Your task to perform on an android device: open app "Facebook Messenger" (install if not already installed) Image 0: 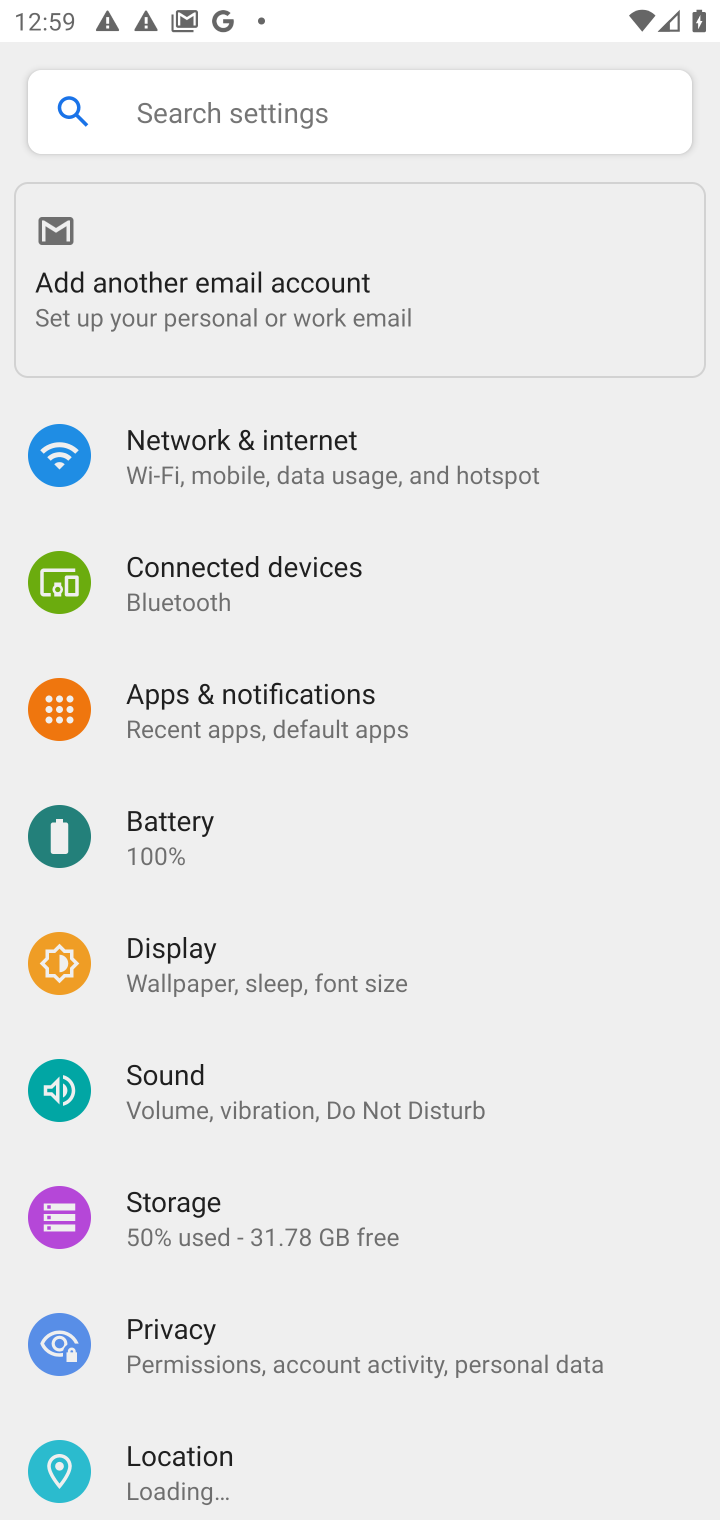
Step 0: press home button
Your task to perform on an android device: open app "Facebook Messenger" (install if not already installed) Image 1: 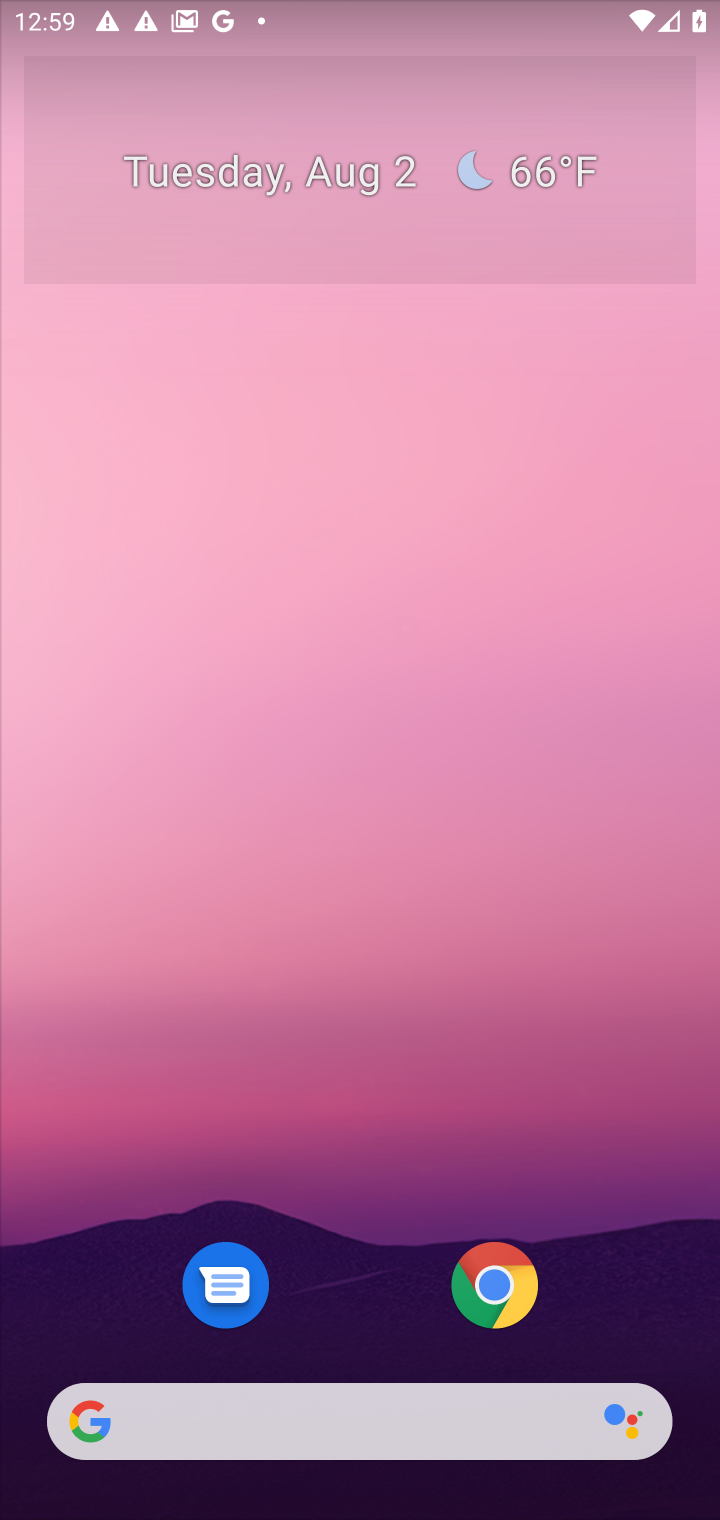
Step 1: drag from (376, 1371) to (468, 222)
Your task to perform on an android device: open app "Facebook Messenger" (install if not already installed) Image 2: 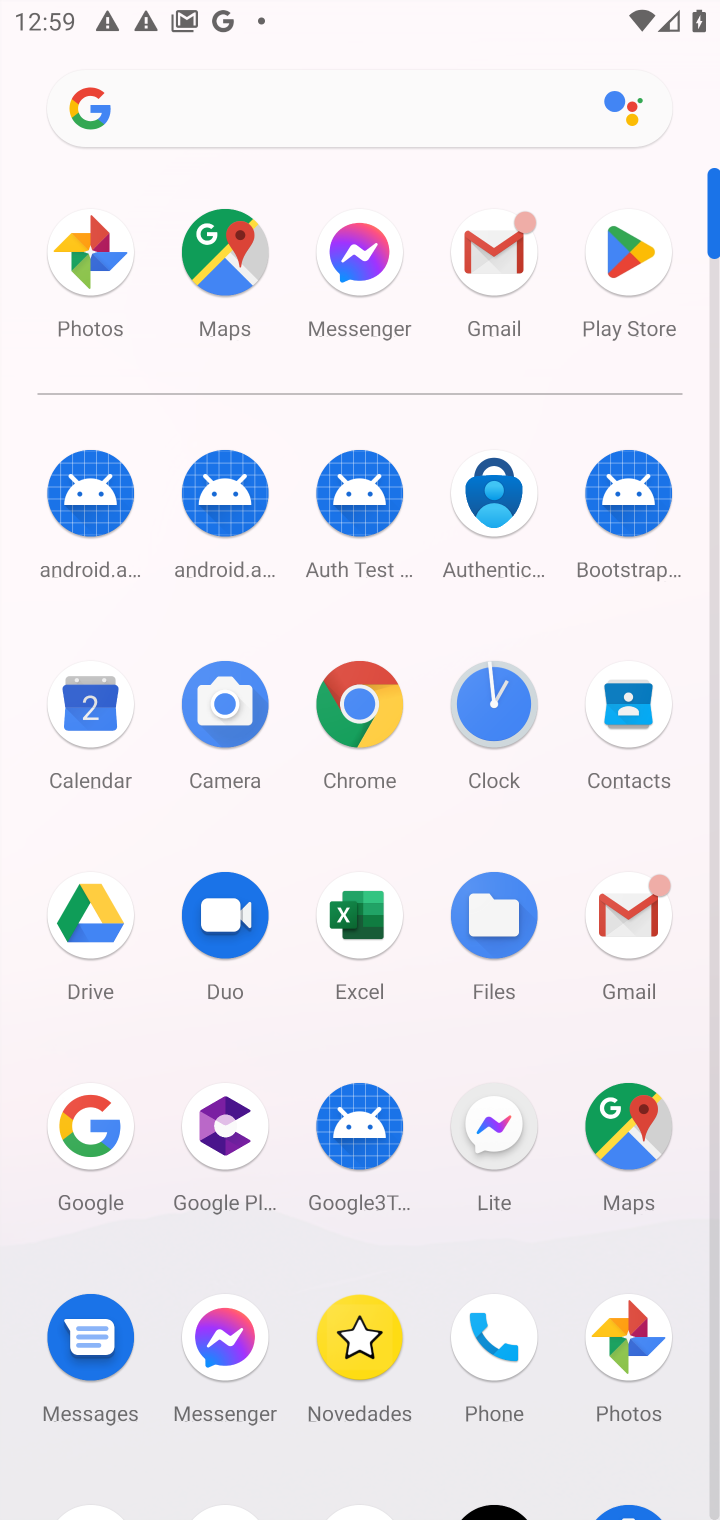
Step 2: drag from (448, 1246) to (526, 403)
Your task to perform on an android device: open app "Facebook Messenger" (install if not already installed) Image 3: 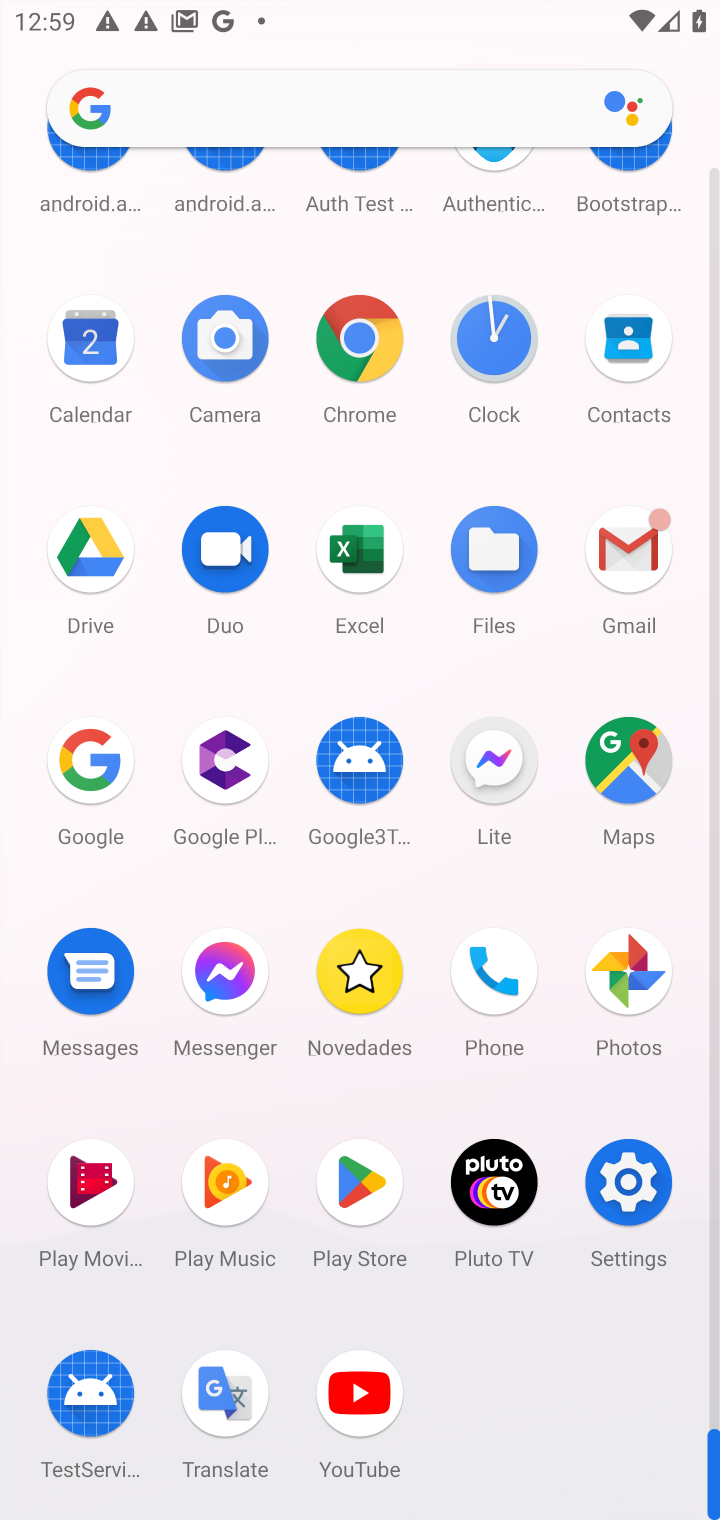
Step 3: click (362, 1194)
Your task to perform on an android device: open app "Facebook Messenger" (install if not already installed) Image 4: 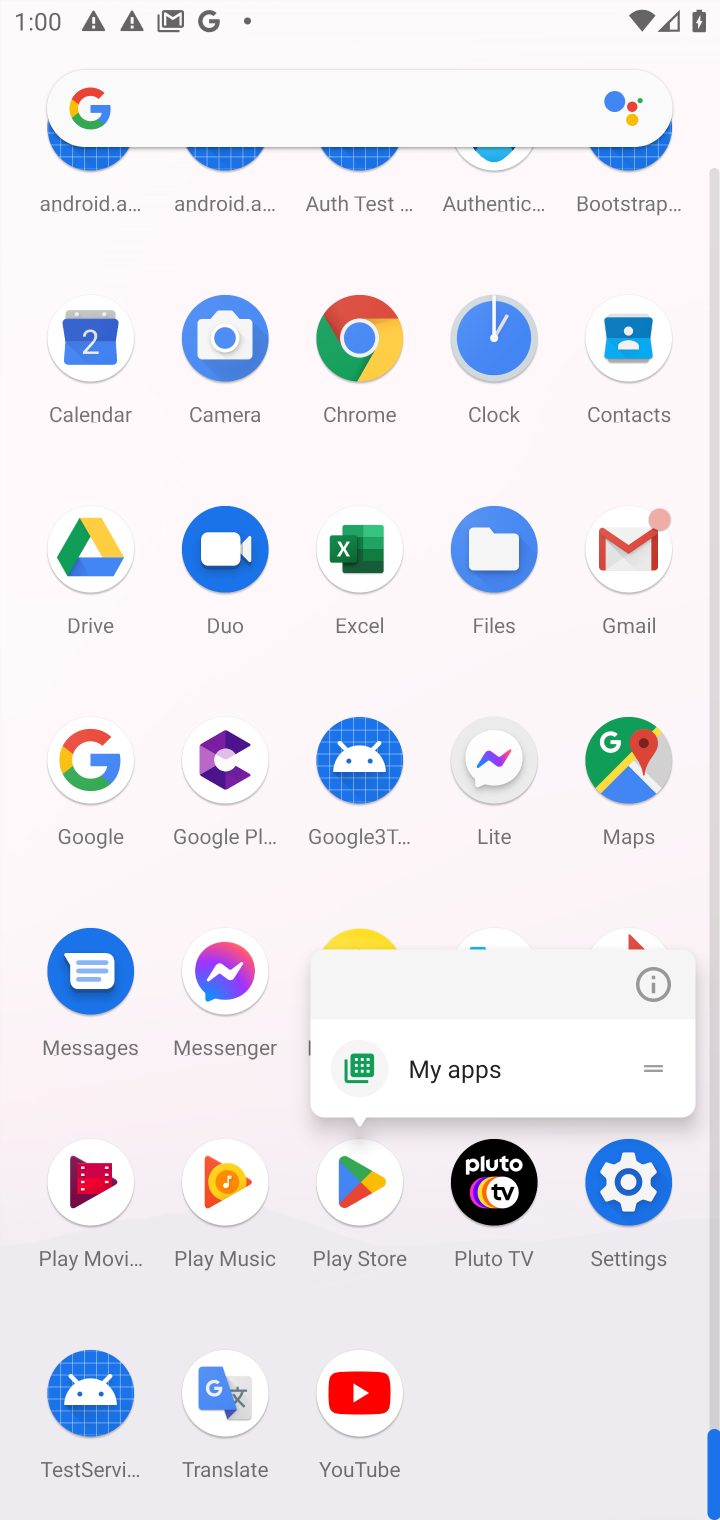
Step 4: click (341, 1170)
Your task to perform on an android device: open app "Facebook Messenger" (install if not already installed) Image 5: 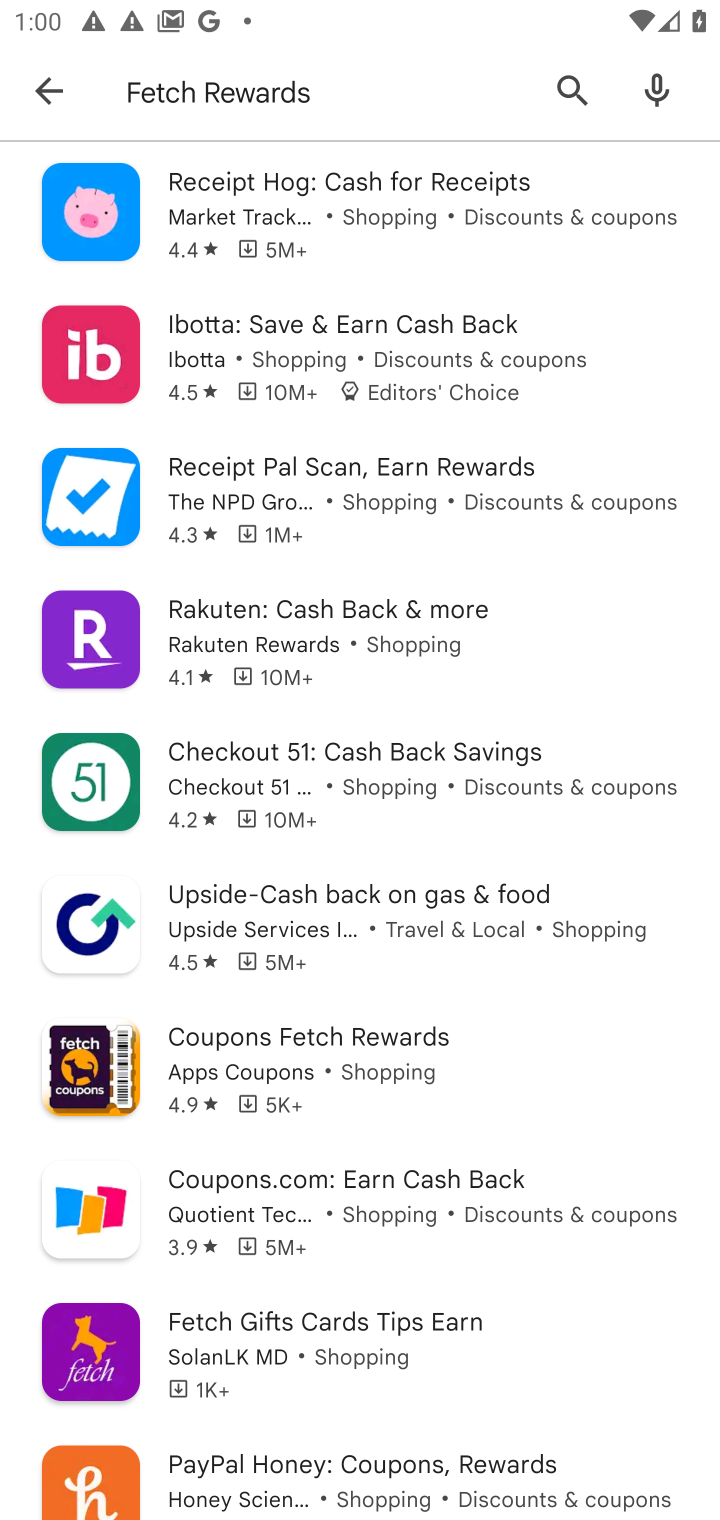
Step 5: click (349, 83)
Your task to perform on an android device: open app "Facebook Messenger" (install if not already installed) Image 6: 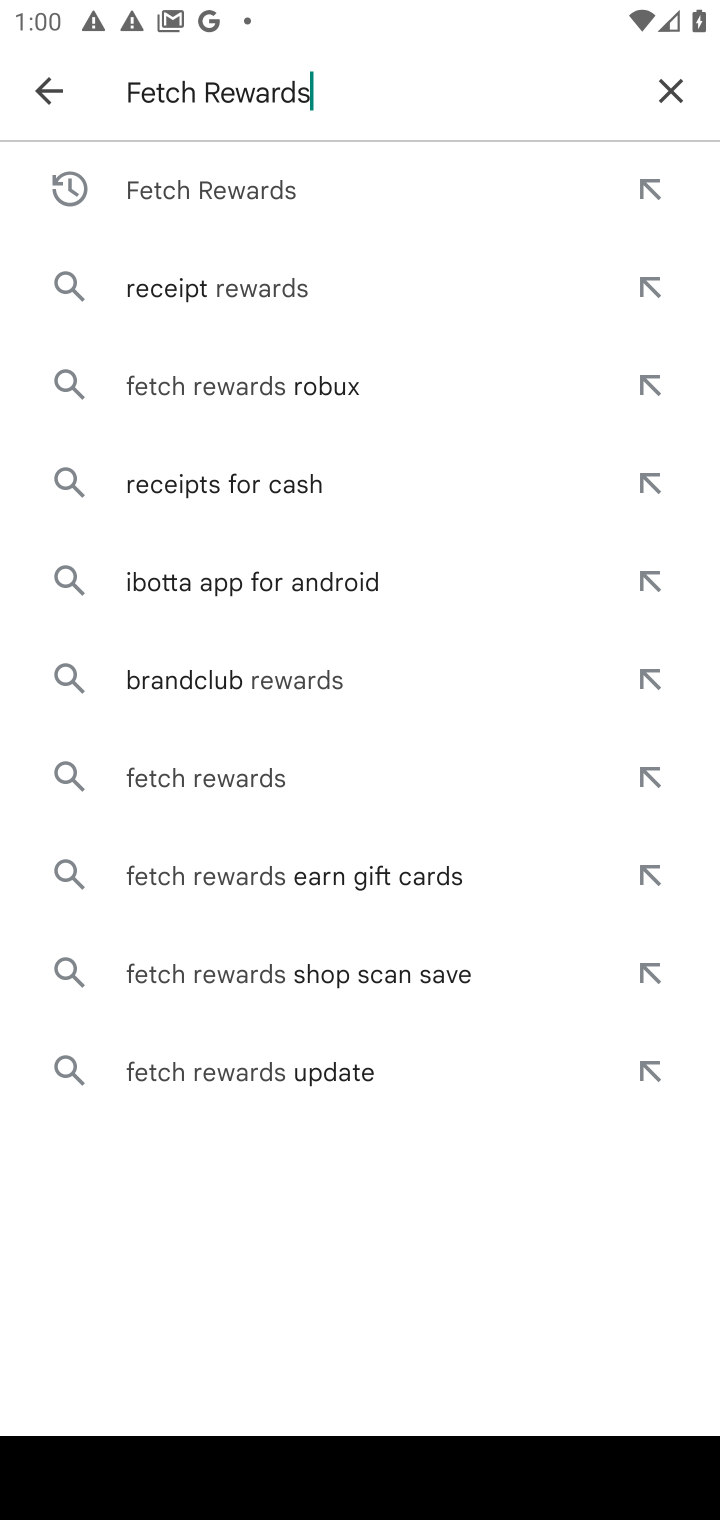
Step 6: click (669, 91)
Your task to perform on an android device: open app "Facebook Messenger" (install if not already installed) Image 7: 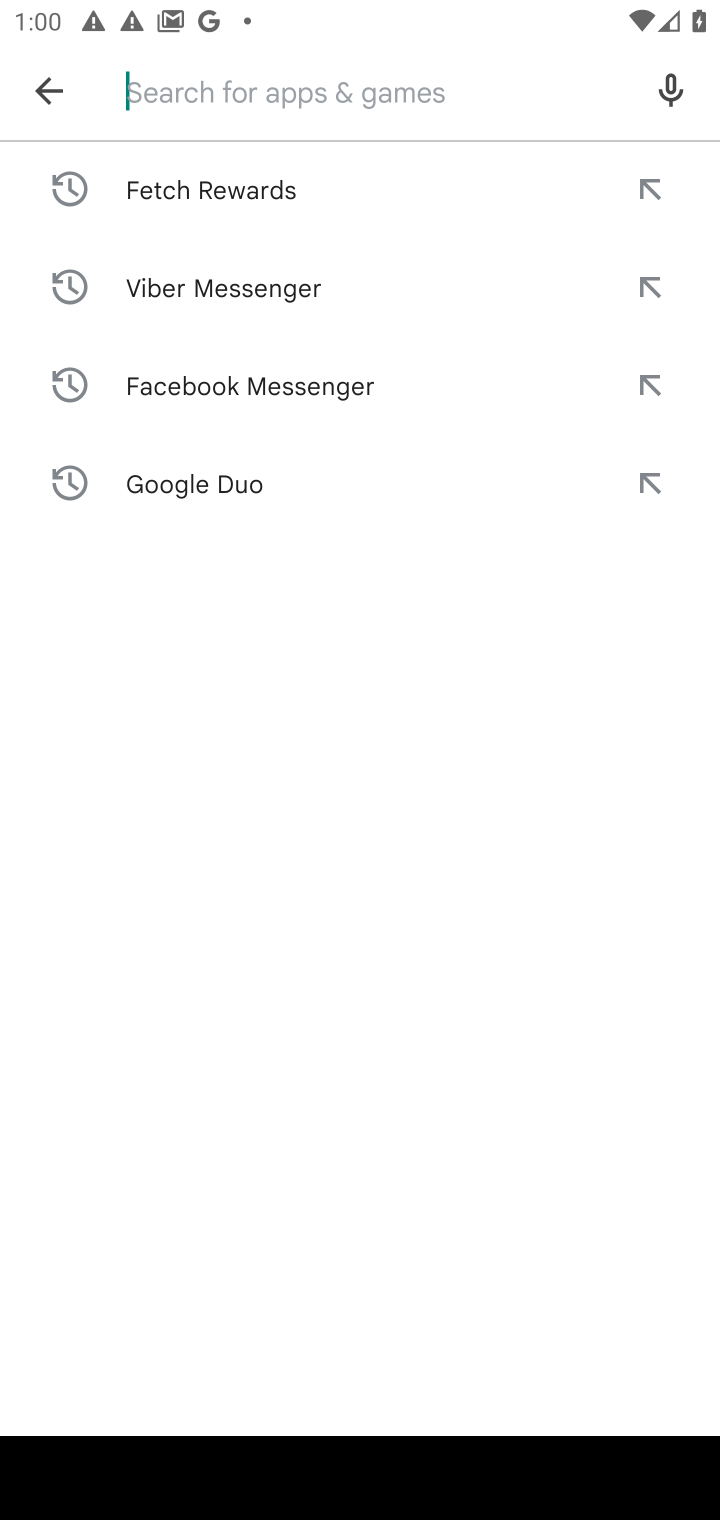
Step 7: type "Facebook Messenger"
Your task to perform on an android device: open app "Facebook Messenger" (install if not already installed) Image 8: 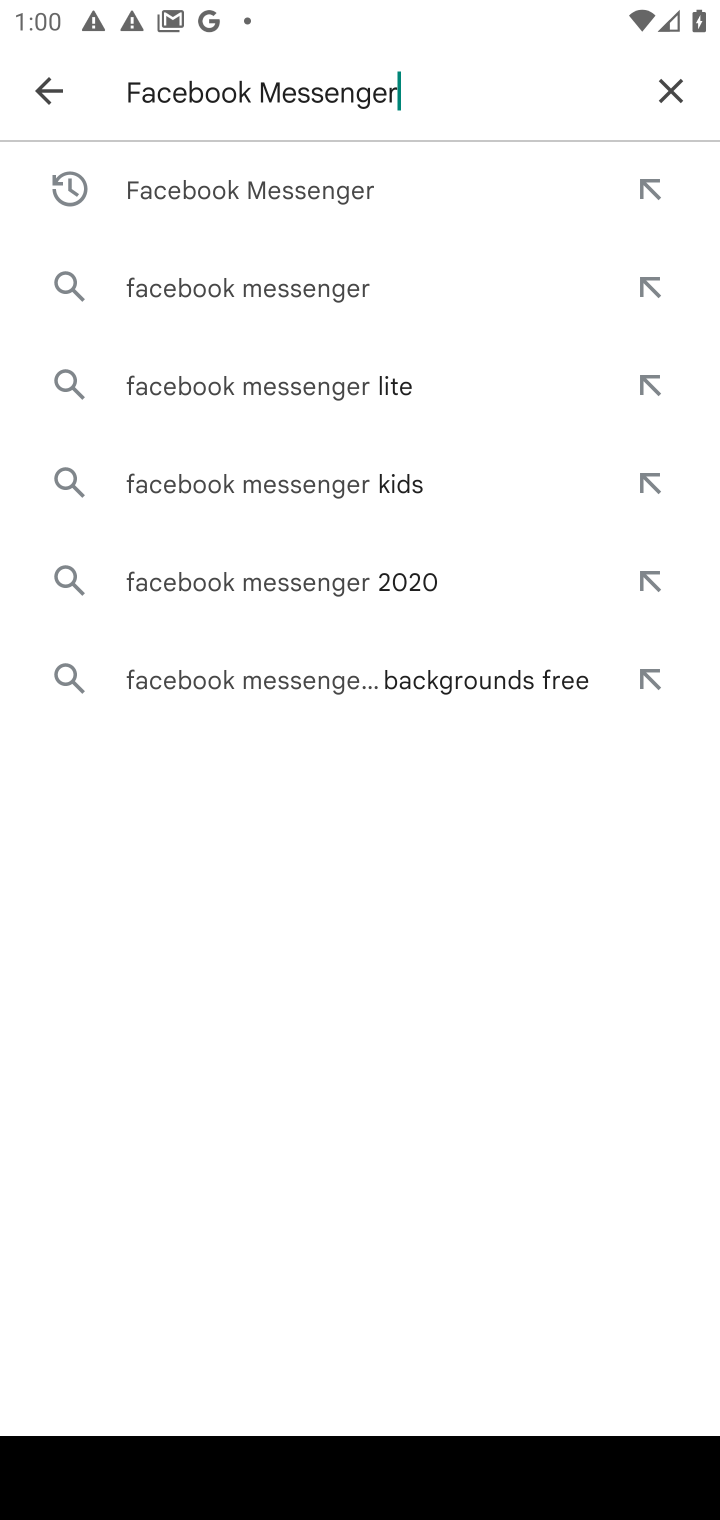
Step 8: press enter
Your task to perform on an android device: open app "Facebook Messenger" (install if not already installed) Image 9: 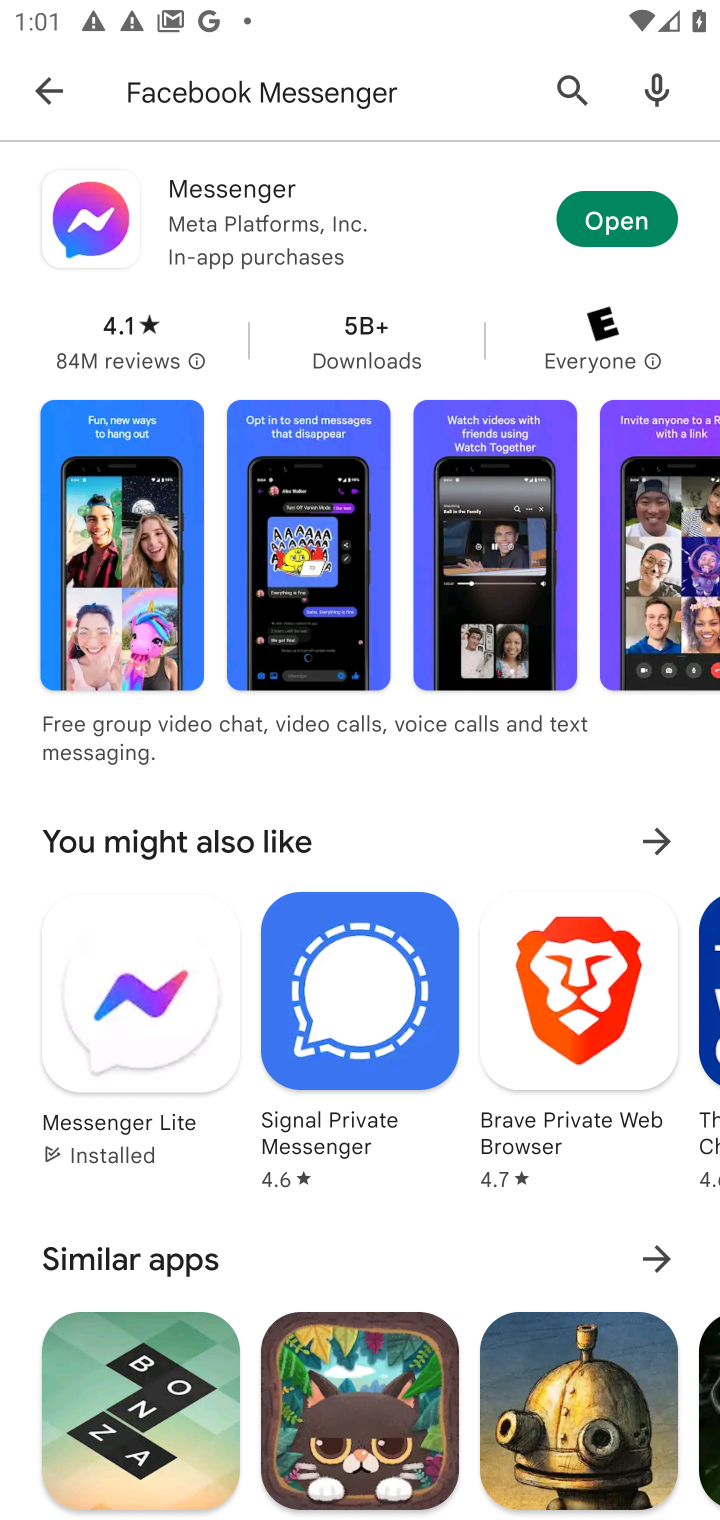
Step 9: click (620, 202)
Your task to perform on an android device: open app "Facebook Messenger" (install if not already installed) Image 10: 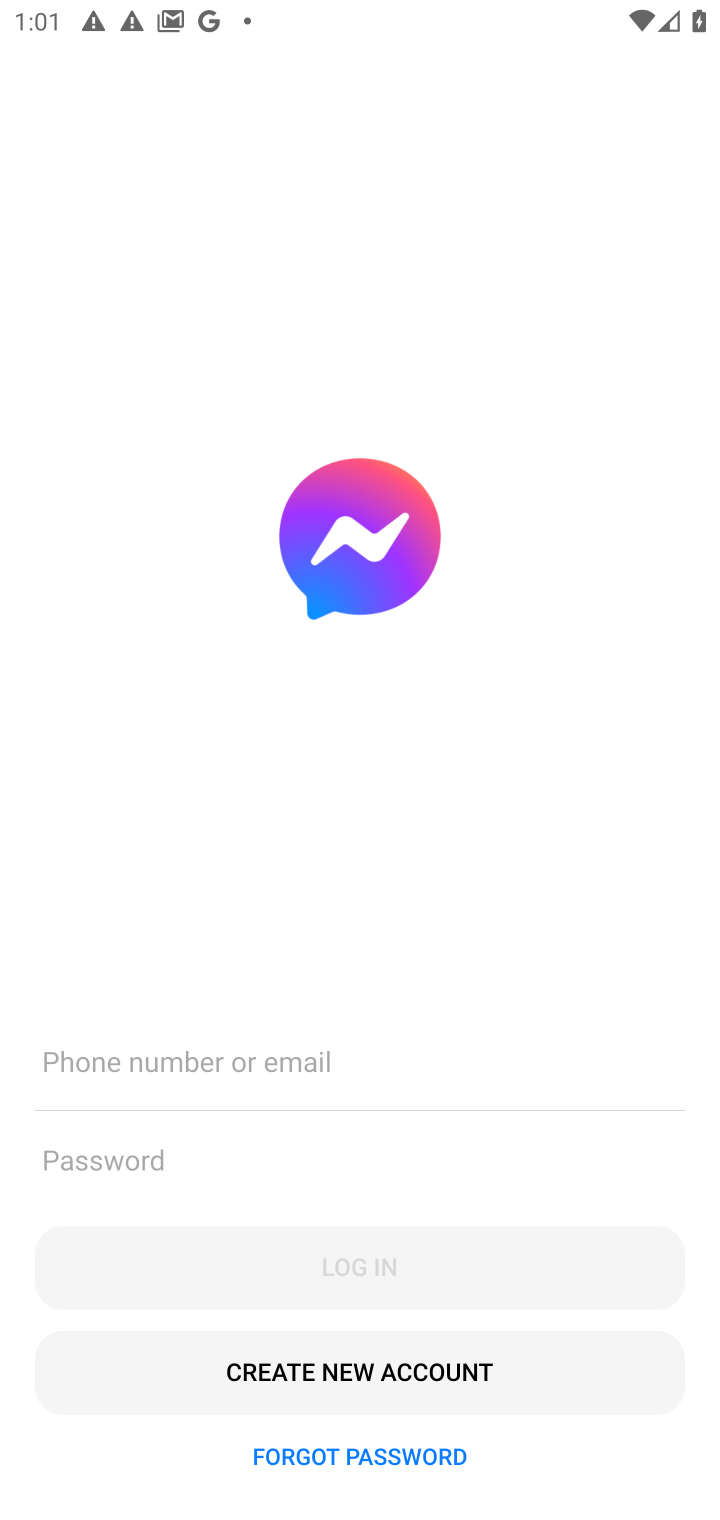
Step 10: task complete